Your task to perform on an android device: search for starred emails in the gmail app Image 0: 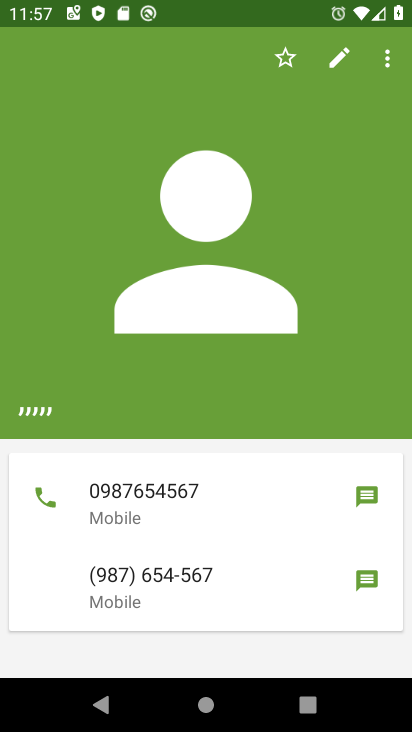
Step 0: drag from (227, 661) to (299, 327)
Your task to perform on an android device: search for starred emails in the gmail app Image 1: 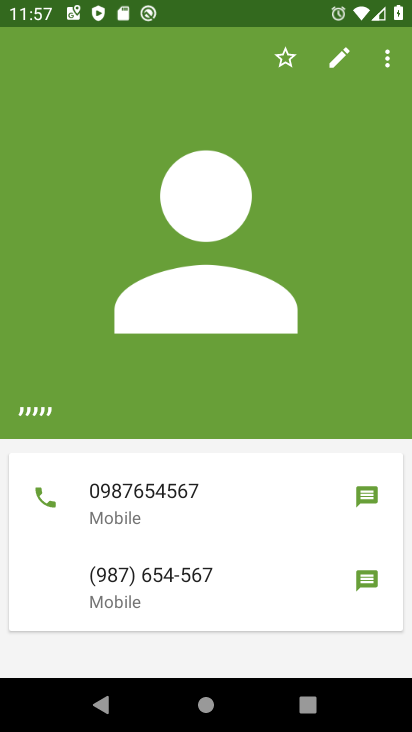
Step 1: press home button
Your task to perform on an android device: search for starred emails in the gmail app Image 2: 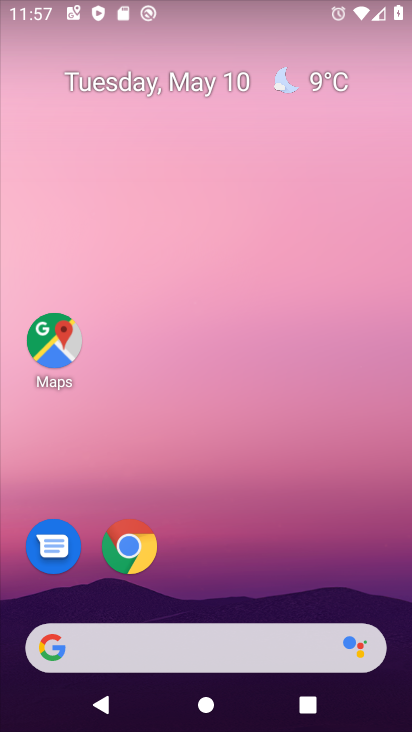
Step 2: drag from (203, 606) to (244, 277)
Your task to perform on an android device: search for starred emails in the gmail app Image 3: 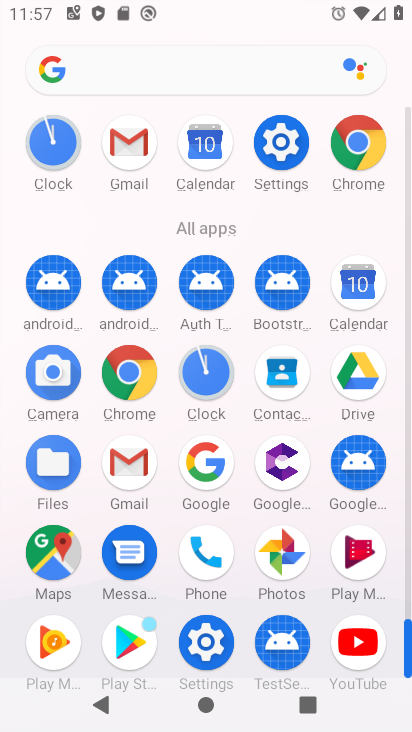
Step 3: click (137, 461)
Your task to perform on an android device: search for starred emails in the gmail app Image 4: 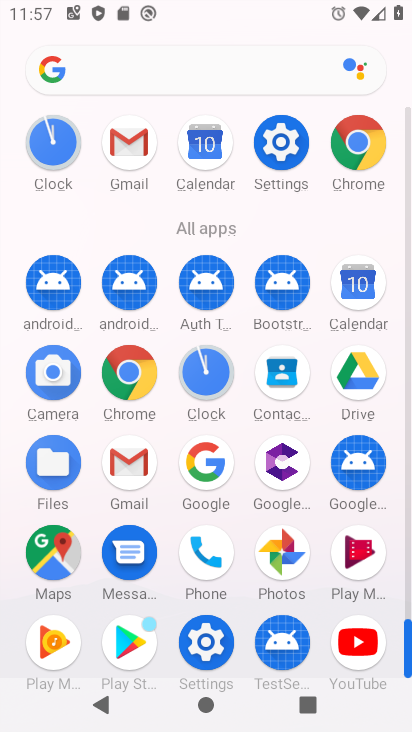
Step 4: click (137, 461)
Your task to perform on an android device: search for starred emails in the gmail app Image 5: 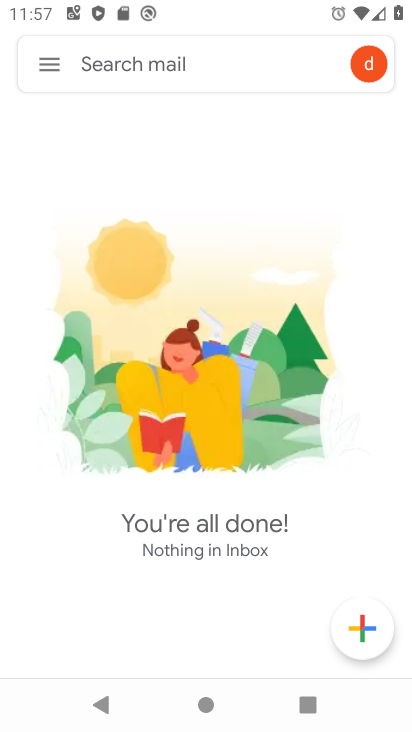
Step 5: click (33, 59)
Your task to perform on an android device: search for starred emails in the gmail app Image 6: 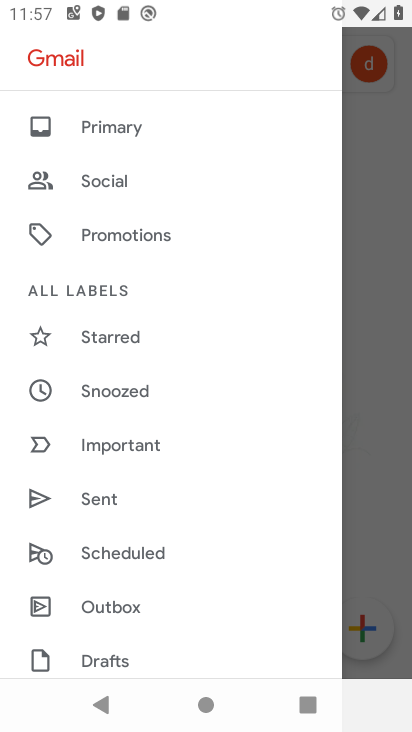
Step 6: click (112, 341)
Your task to perform on an android device: search for starred emails in the gmail app Image 7: 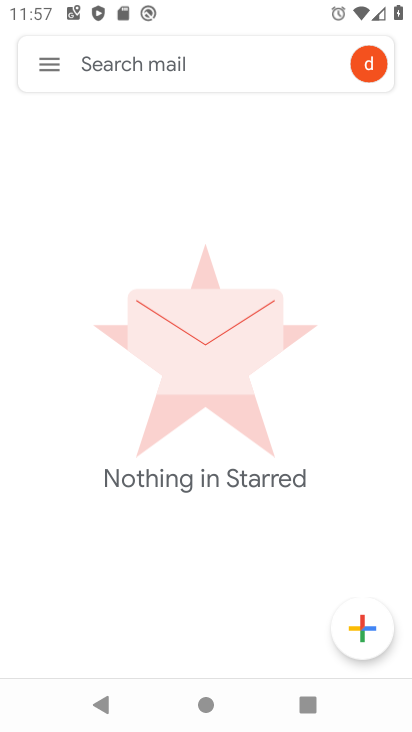
Step 7: task complete